Your task to perform on an android device: Go to Reddit.com Image 0: 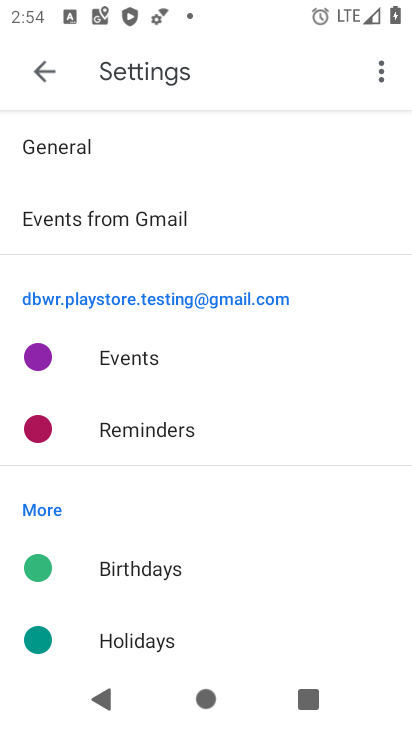
Step 0: press home button
Your task to perform on an android device: Go to Reddit.com Image 1: 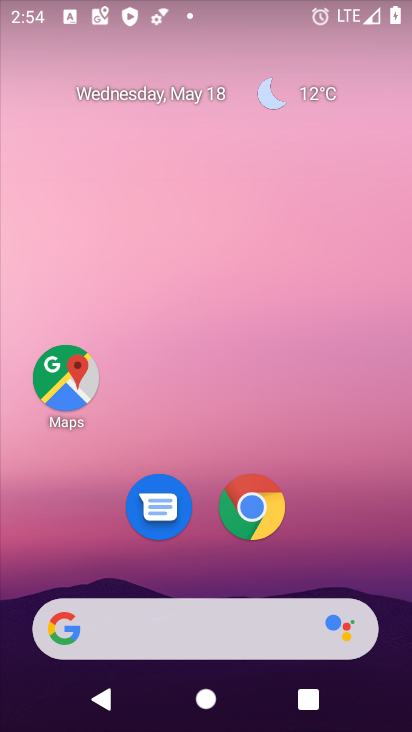
Step 1: click (251, 508)
Your task to perform on an android device: Go to Reddit.com Image 2: 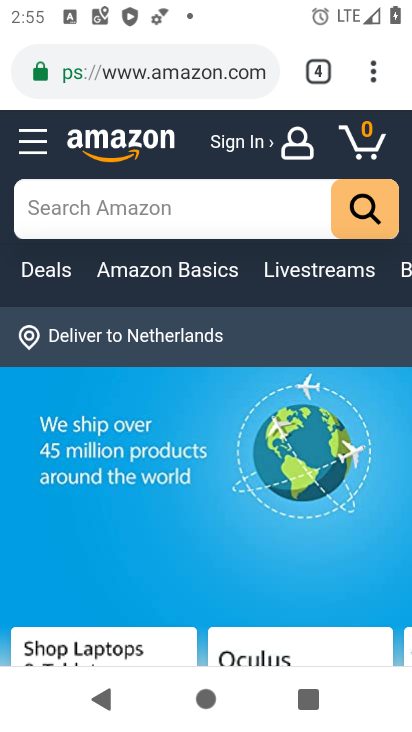
Step 2: click (146, 60)
Your task to perform on an android device: Go to Reddit.com Image 3: 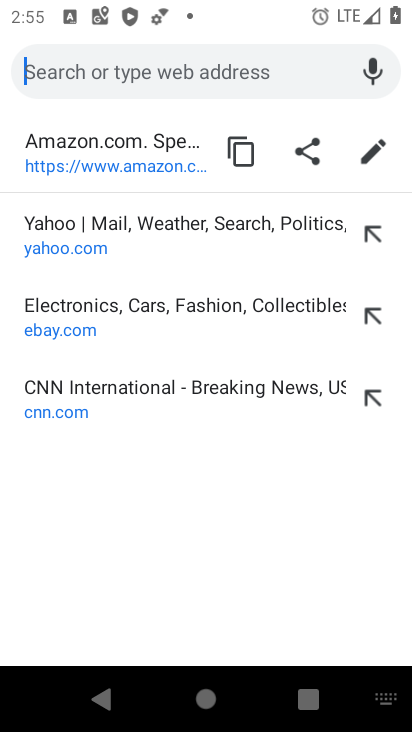
Step 3: type "reddit.com"
Your task to perform on an android device: Go to Reddit.com Image 4: 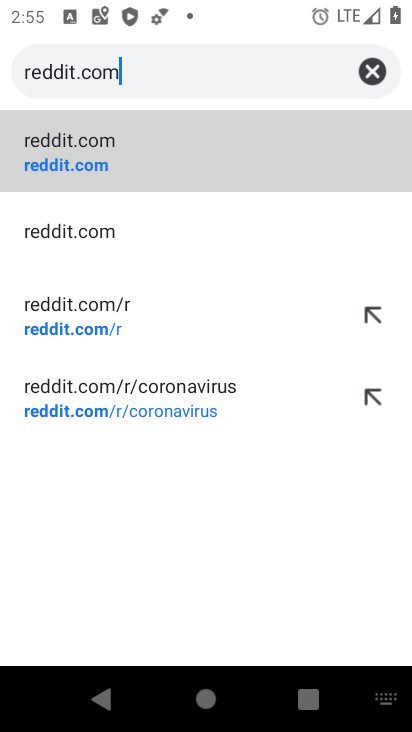
Step 4: click (63, 150)
Your task to perform on an android device: Go to Reddit.com Image 5: 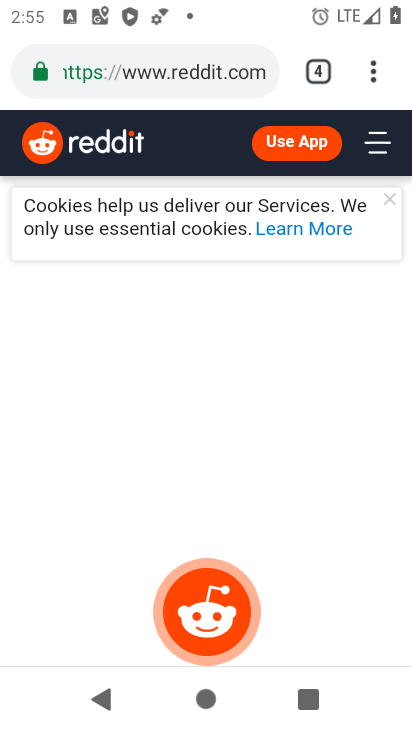
Step 5: task complete